Your task to perform on an android device: Go to Yahoo.com Image 0: 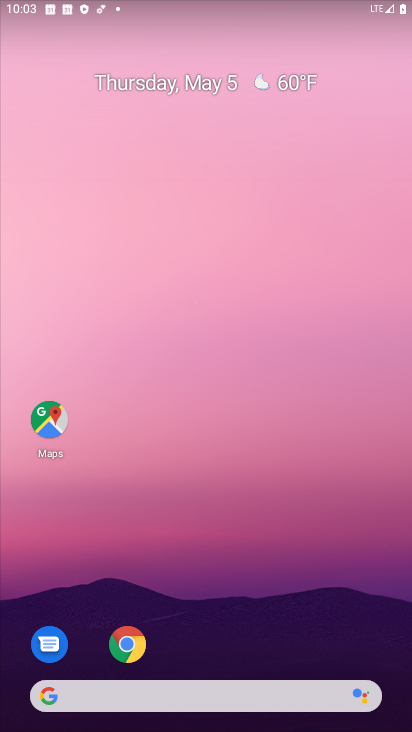
Step 0: drag from (169, 668) to (246, 245)
Your task to perform on an android device: Go to Yahoo.com Image 1: 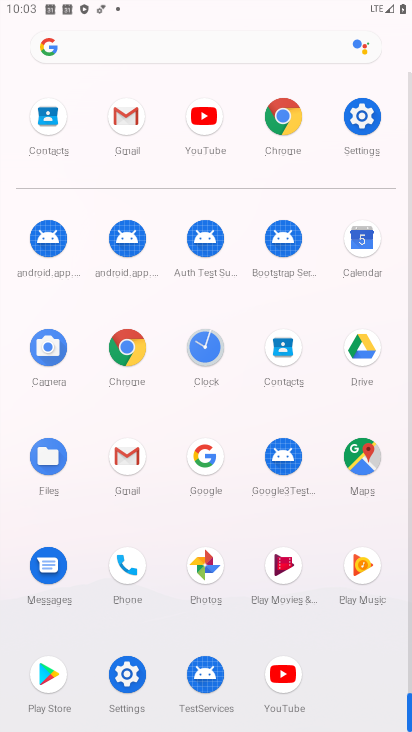
Step 1: click (266, 113)
Your task to perform on an android device: Go to Yahoo.com Image 2: 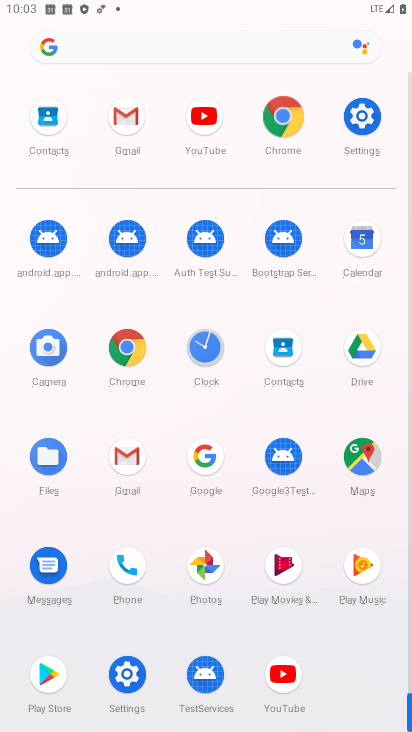
Step 2: click (267, 113)
Your task to perform on an android device: Go to Yahoo.com Image 3: 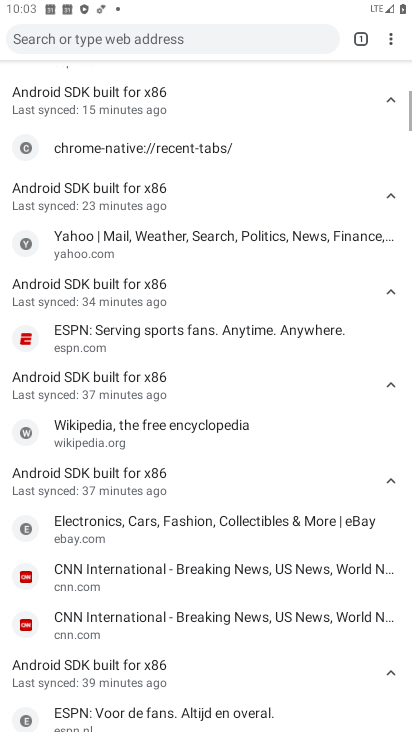
Step 3: click (162, 17)
Your task to perform on an android device: Go to Yahoo.com Image 4: 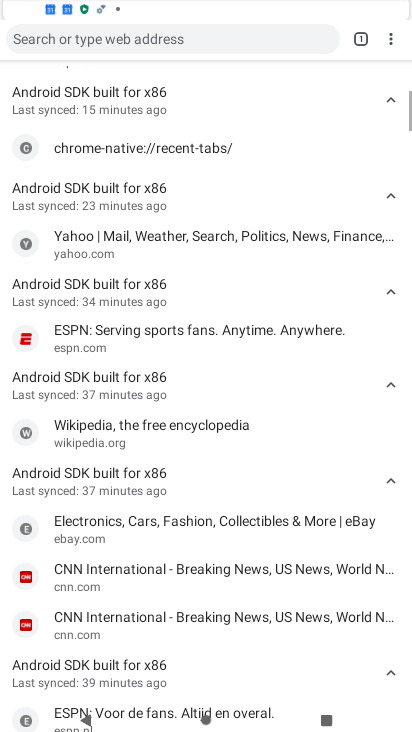
Step 4: click (159, 27)
Your task to perform on an android device: Go to Yahoo.com Image 5: 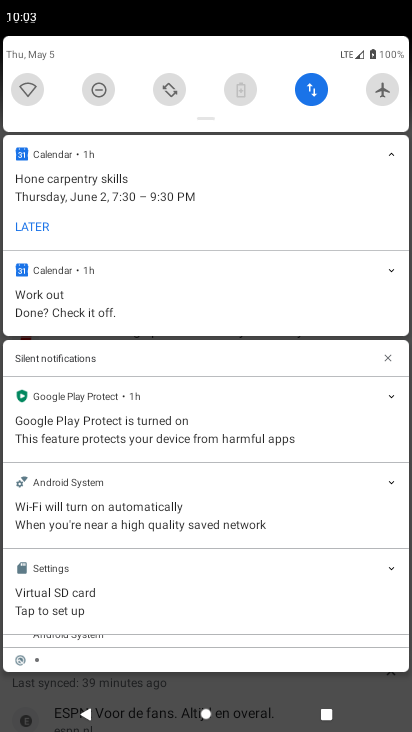
Step 5: press back button
Your task to perform on an android device: Go to Yahoo.com Image 6: 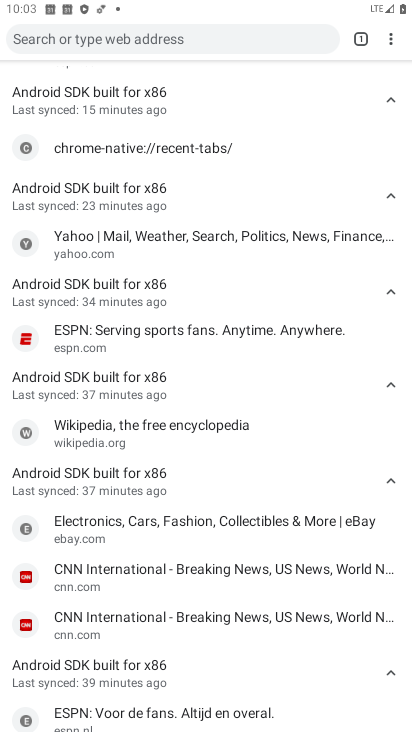
Step 6: click (117, 41)
Your task to perform on an android device: Go to Yahoo.com Image 7: 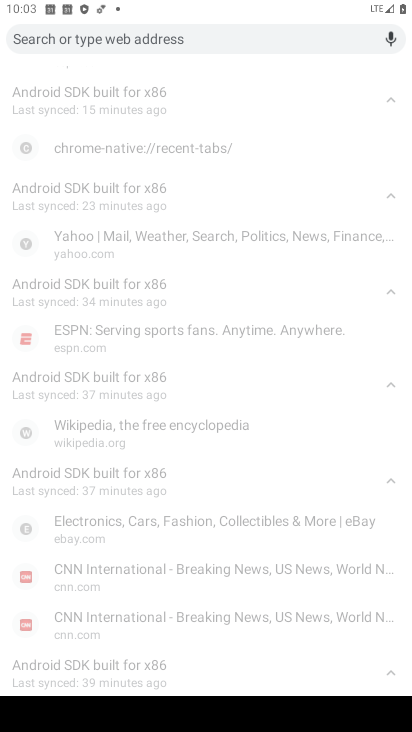
Step 7: type "yahoo"
Your task to perform on an android device: Go to Yahoo.com Image 8: 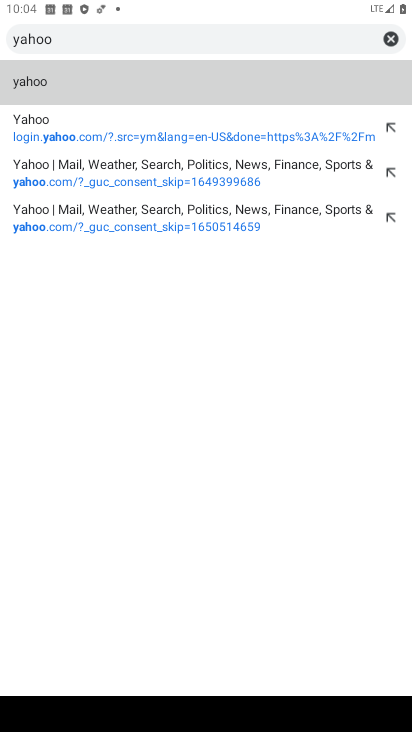
Step 8: click (54, 125)
Your task to perform on an android device: Go to Yahoo.com Image 9: 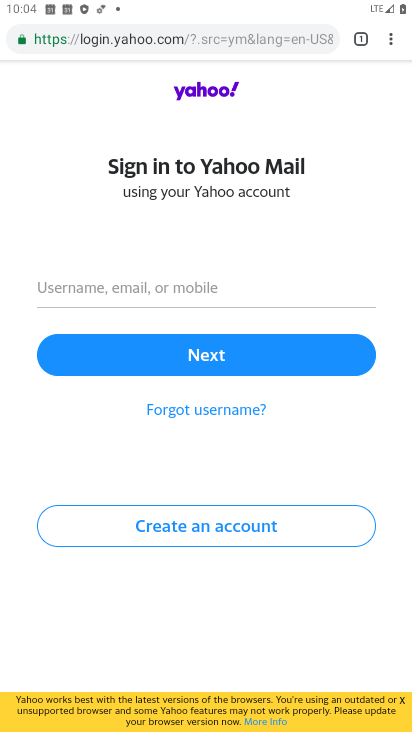
Step 9: task complete